Your task to perform on an android device: Add "alienware area 51" to the cart on amazon Image 0: 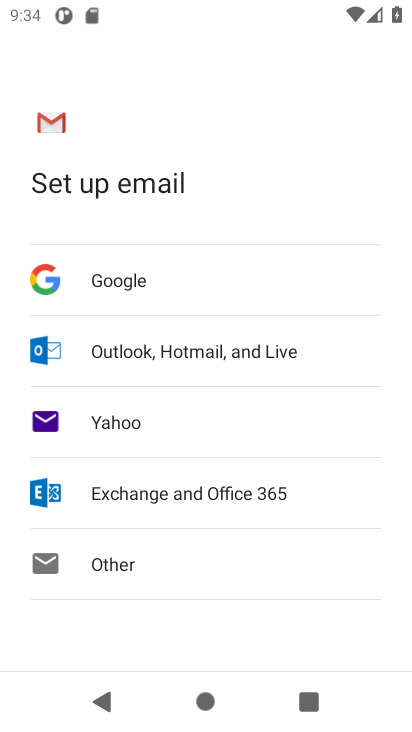
Step 0: press home button
Your task to perform on an android device: Add "alienware area 51" to the cart on amazon Image 1: 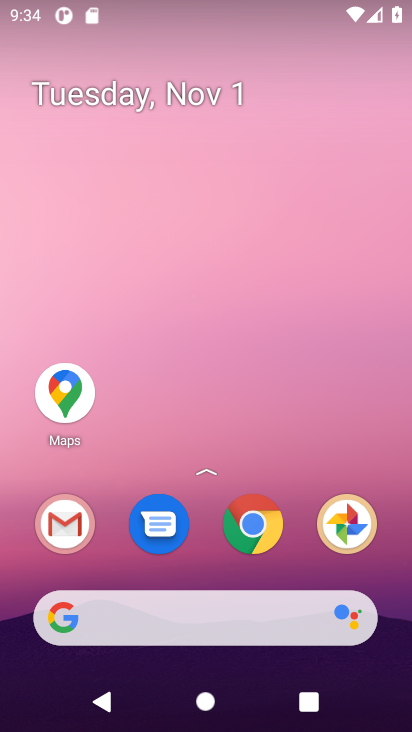
Step 1: click (93, 618)
Your task to perform on an android device: Add "alienware area 51" to the cart on amazon Image 2: 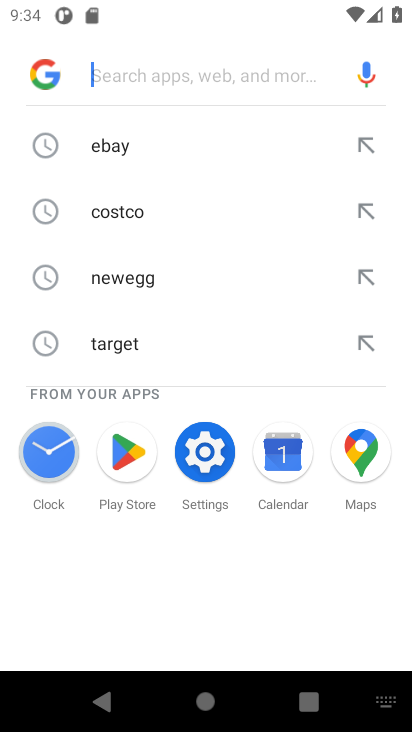
Step 2: type "amazon"
Your task to perform on an android device: Add "alienware area 51" to the cart on amazon Image 3: 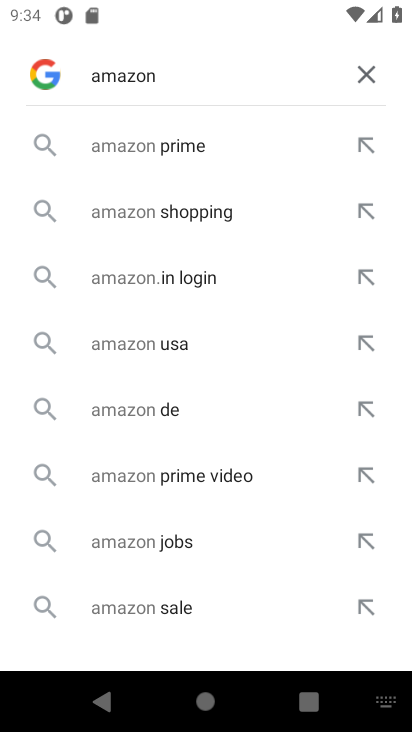
Step 3: press enter
Your task to perform on an android device: Add "alienware area 51" to the cart on amazon Image 4: 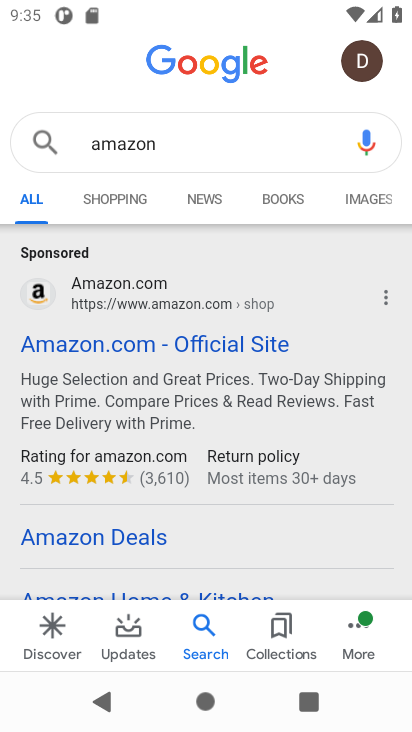
Step 4: click (129, 345)
Your task to perform on an android device: Add "alienware area 51" to the cart on amazon Image 5: 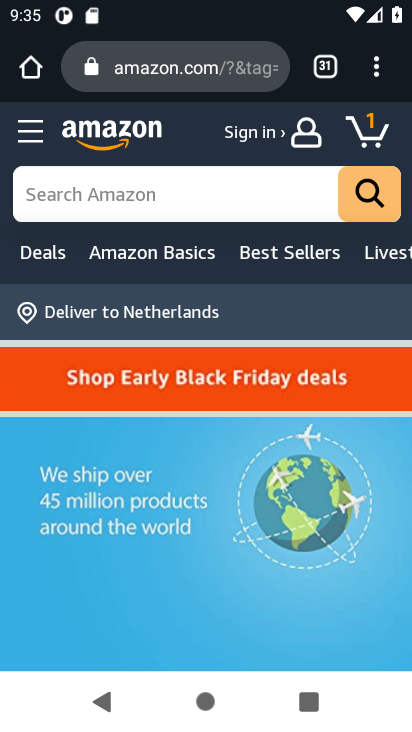
Step 5: click (51, 196)
Your task to perform on an android device: Add "alienware area 51" to the cart on amazon Image 6: 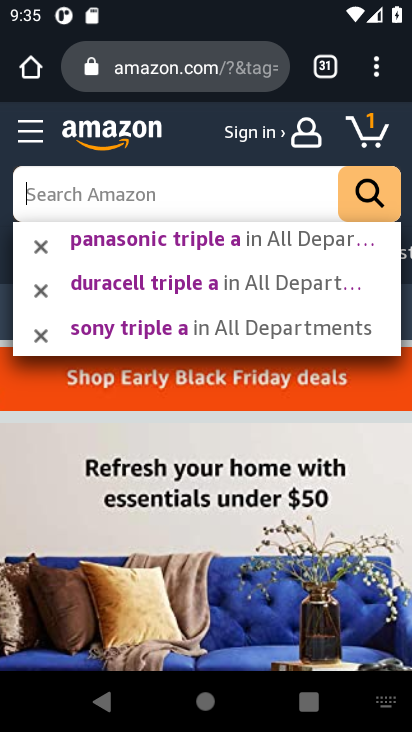
Step 6: type "alienware area 51"
Your task to perform on an android device: Add "alienware area 51" to the cart on amazon Image 7: 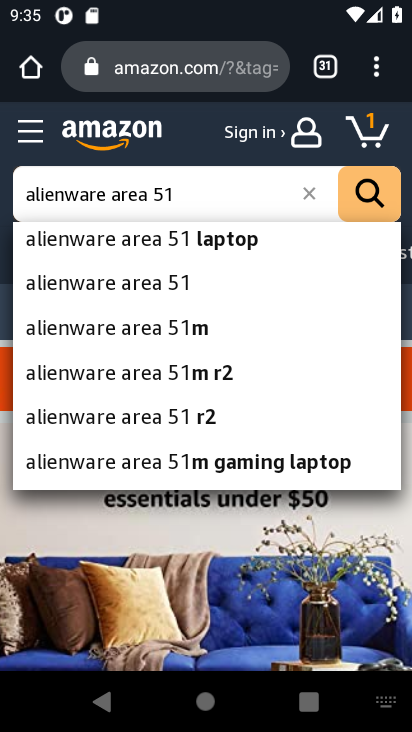
Step 7: press enter
Your task to perform on an android device: Add "alienware area 51" to the cart on amazon Image 8: 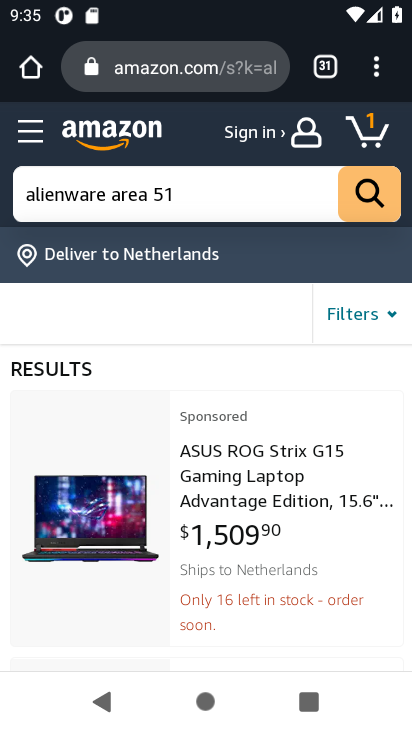
Step 8: drag from (256, 553) to (250, 291)
Your task to perform on an android device: Add "alienware area 51" to the cart on amazon Image 9: 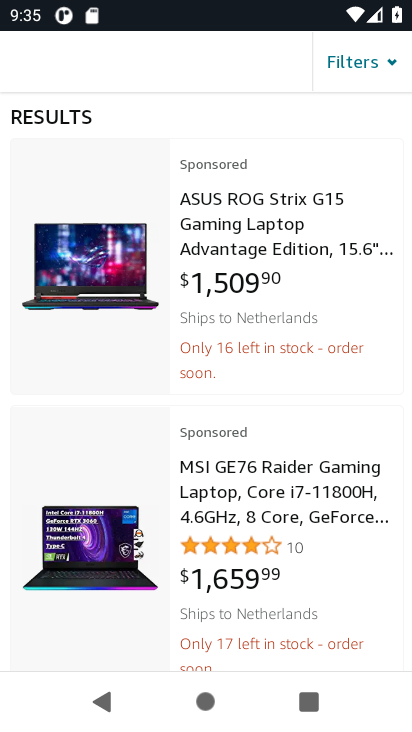
Step 9: drag from (263, 541) to (274, 256)
Your task to perform on an android device: Add "alienware area 51" to the cart on amazon Image 10: 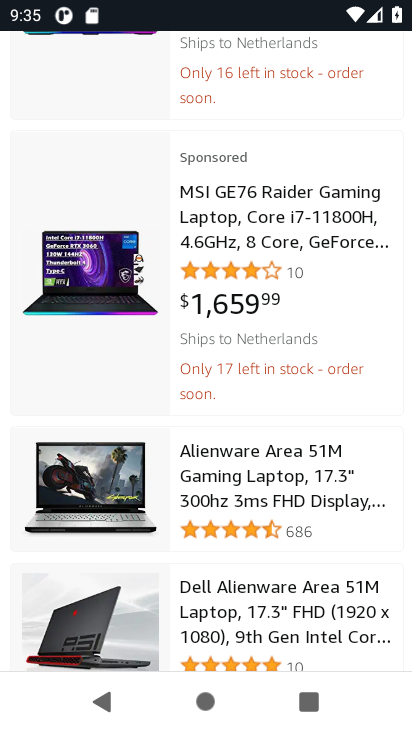
Step 10: drag from (256, 522) to (259, 319)
Your task to perform on an android device: Add "alienware area 51" to the cart on amazon Image 11: 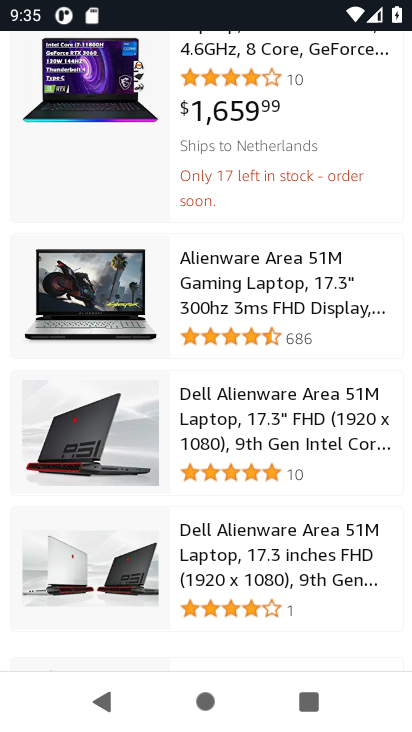
Step 11: drag from (262, 500) to (281, 375)
Your task to perform on an android device: Add "alienware area 51" to the cart on amazon Image 12: 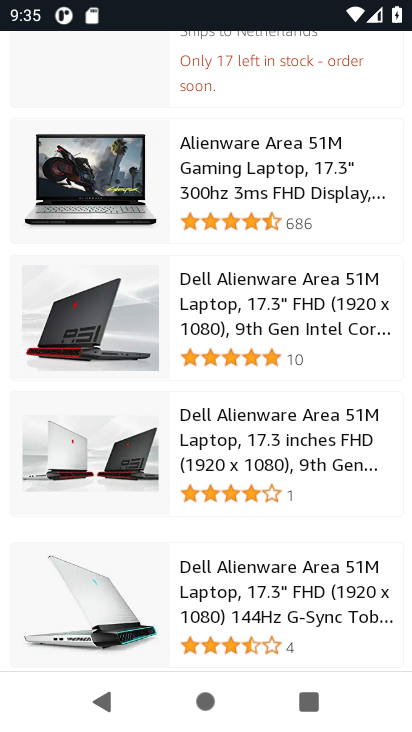
Step 12: click (239, 154)
Your task to perform on an android device: Add "alienware area 51" to the cart on amazon Image 13: 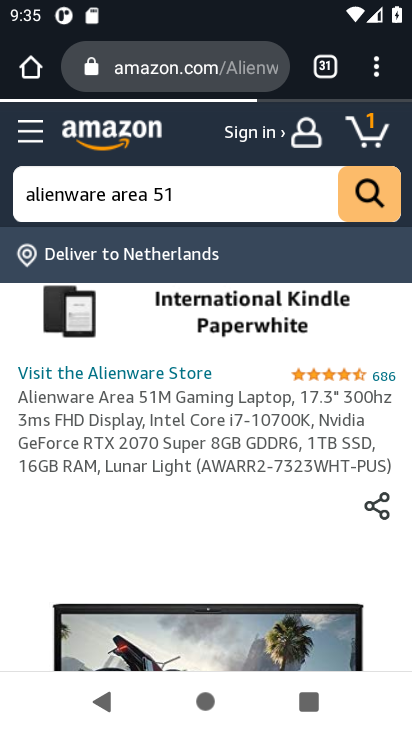
Step 13: task complete